Your task to perform on an android device: Toggle the flashlight Image 0: 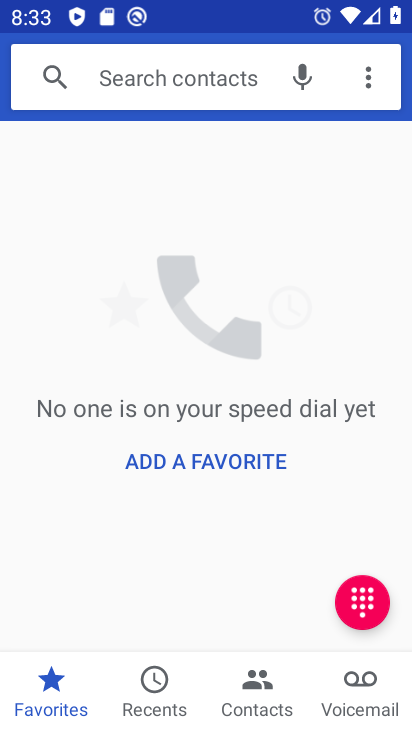
Step 0: press home button
Your task to perform on an android device: Toggle the flashlight Image 1: 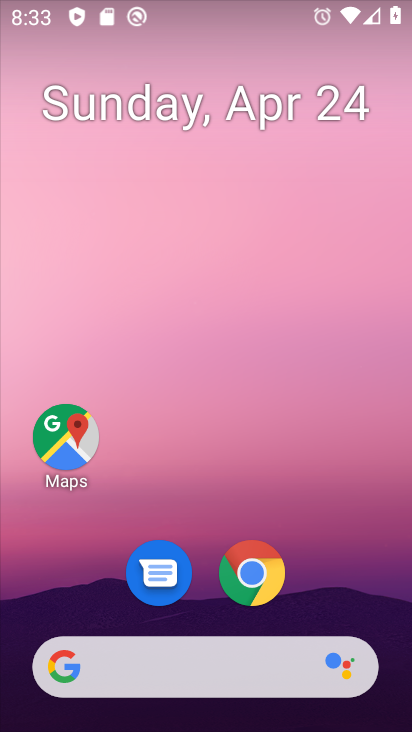
Step 1: drag from (323, 587) to (214, 11)
Your task to perform on an android device: Toggle the flashlight Image 2: 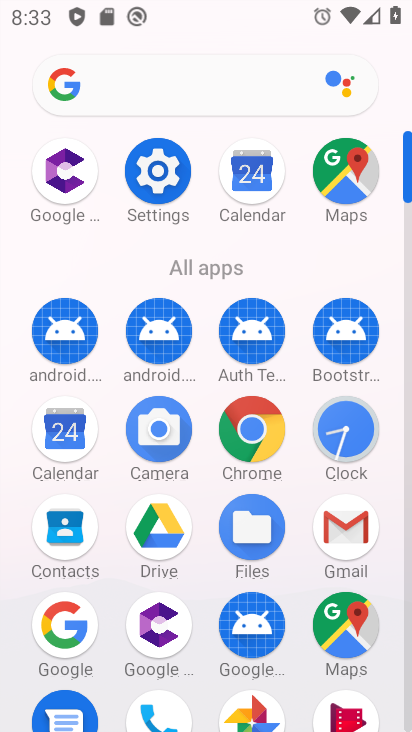
Step 2: click (158, 172)
Your task to perform on an android device: Toggle the flashlight Image 3: 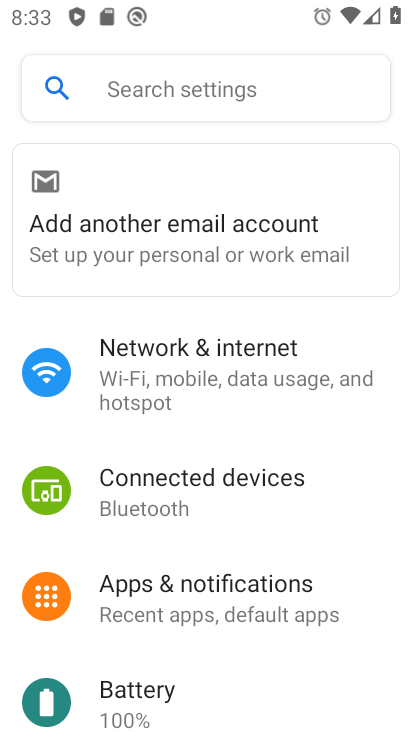
Step 3: drag from (262, 641) to (240, 366)
Your task to perform on an android device: Toggle the flashlight Image 4: 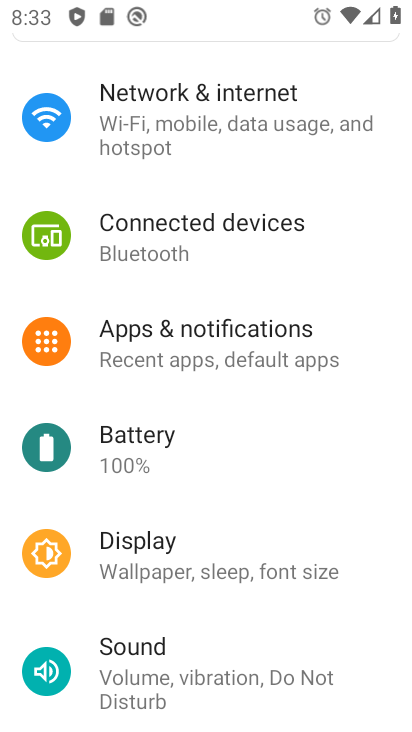
Step 4: click (139, 548)
Your task to perform on an android device: Toggle the flashlight Image 5: 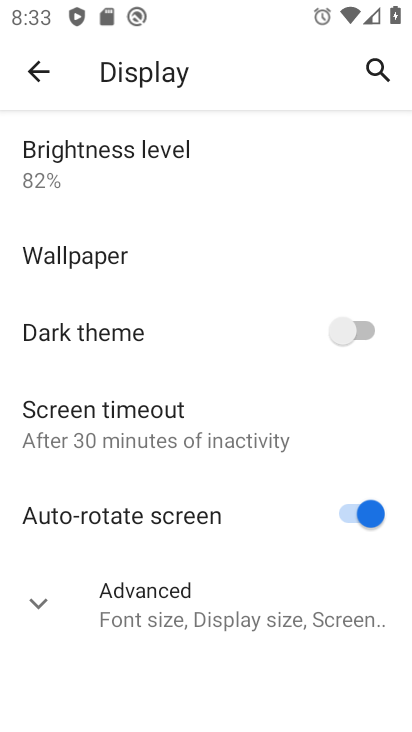
Step 5: drag from (211, 458) to (211, 50)
Your task to perform on an android device: Toggle the flashlight Image 6: 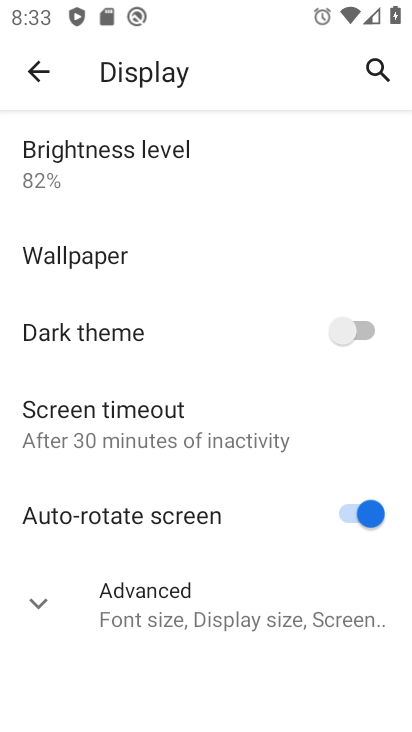
Step 6: click (37, 607)
Your task to perform on an android device: Toggle the flashlight Image 7: 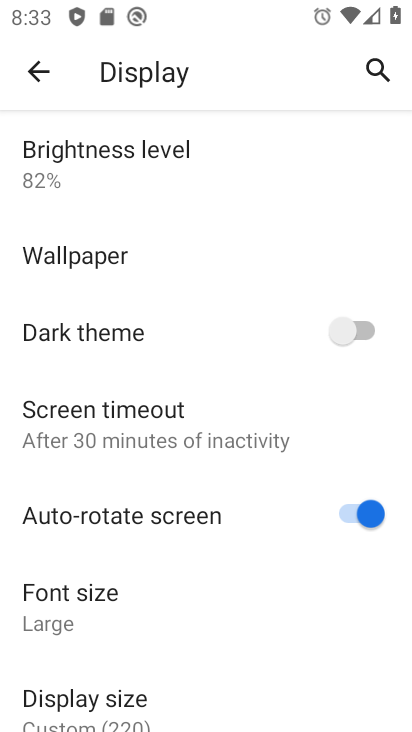
Step 7: drag from (252, 606) to (239, 142)
Your task to perform on an android device: Toggle the flashlight Image 8: 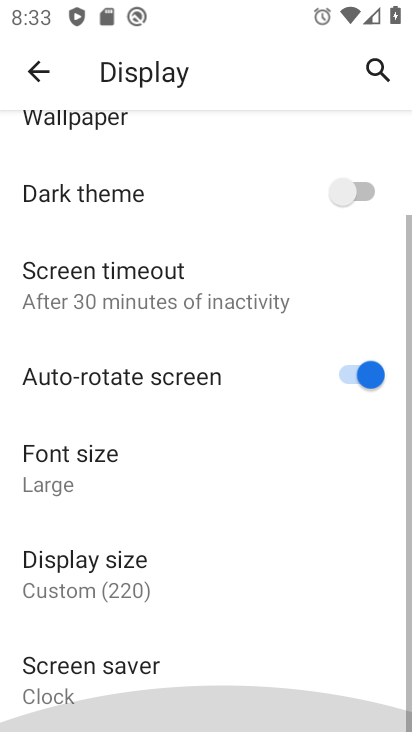
Step 8: click (239, 142)
Your task to perform on an android device: Toggle the flashlight Image 9: 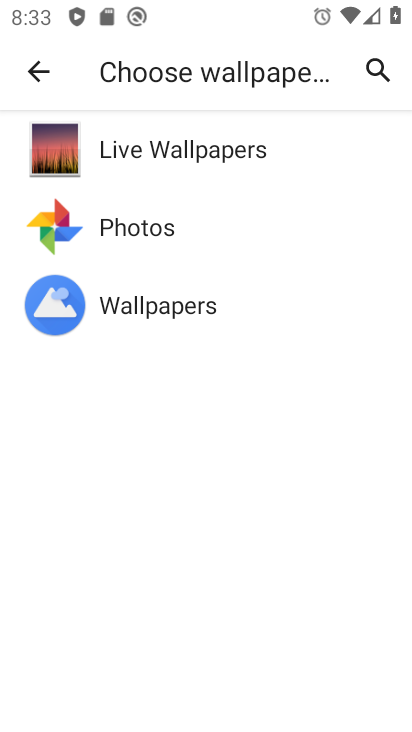
Step 9: click (34, 74)
Your task to perform on an android device: Toggle the flashlight Image 10: 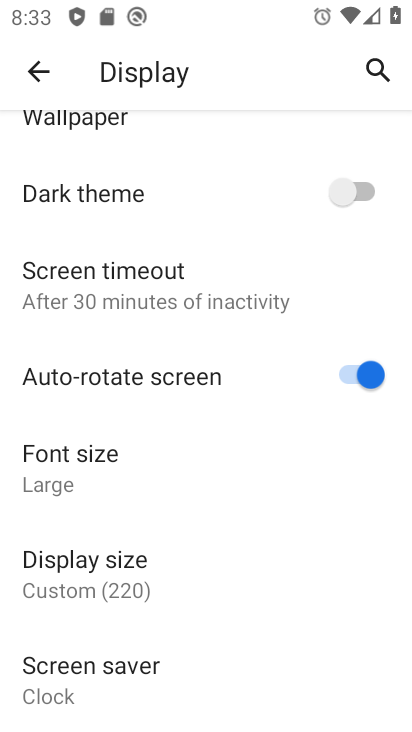
Step 10: click (34, 74)
Your task to perform on an android device: Toggle the flashlight Image 11: 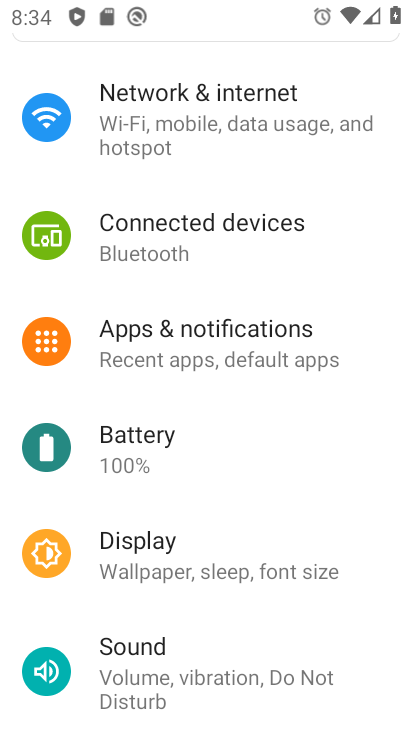
Step 11: click (215, 339)
Your task to perform on an android device: Toggle the flashlight Image 12: 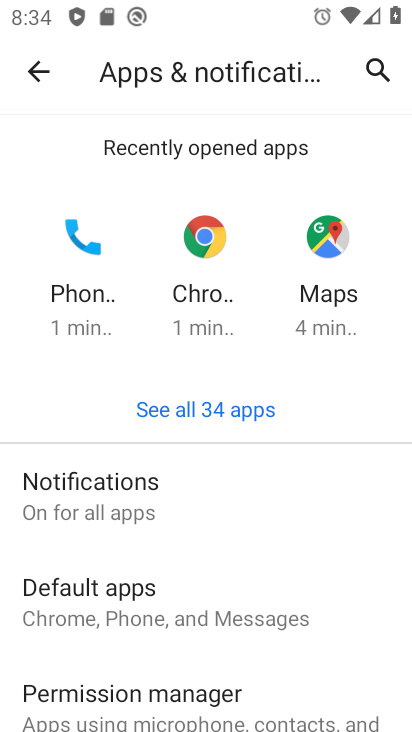
Step 12: drag from (199, 502) to (195, 122)
Your task to perform on an android device: Toggle the flashlight Image 13: 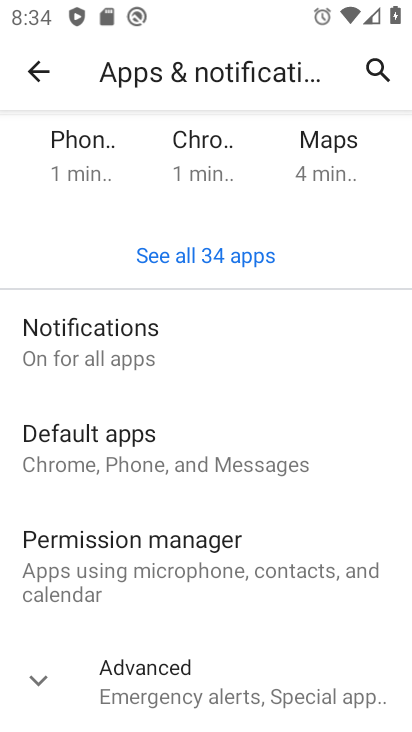
Step 13: click (105, 673)
Your task to perform on an android device: Toggle the flashlight Image 14: 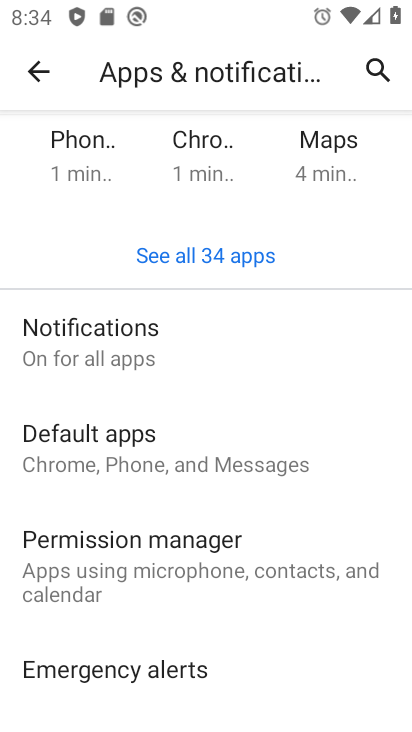
Step 14: task complete